Your task to perform on an android device: change the clock display to digital Image 0: 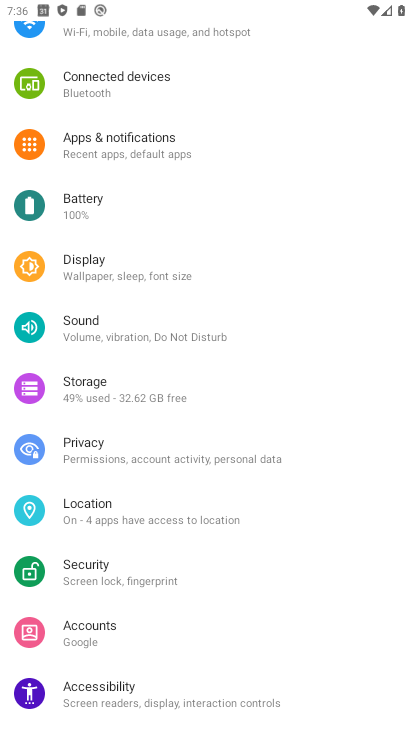
Step 0: press home button
Your task to perform on an android device: change the clock display to digital Image 1: 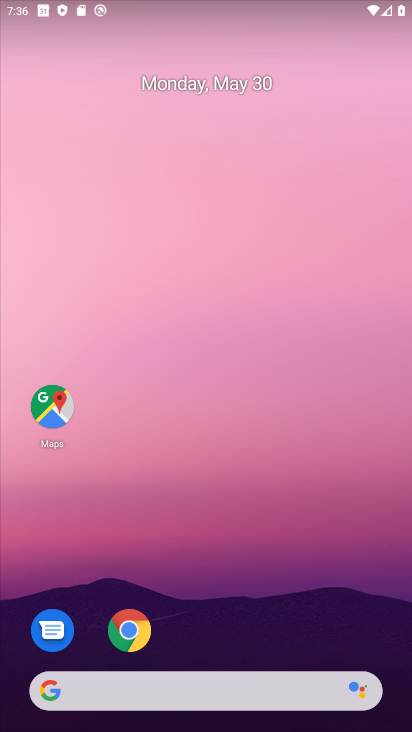
Step 1: drag from (224, 687) to (361, 227)
Your task to perform on an android device: change the clock display to digital Image 2: 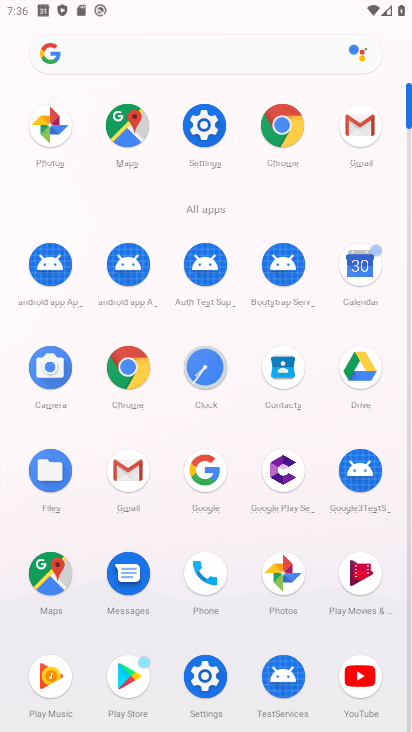
Step 2: click (200, 374)
Your task to perform on an android device: change the clock display to digital Image 3: 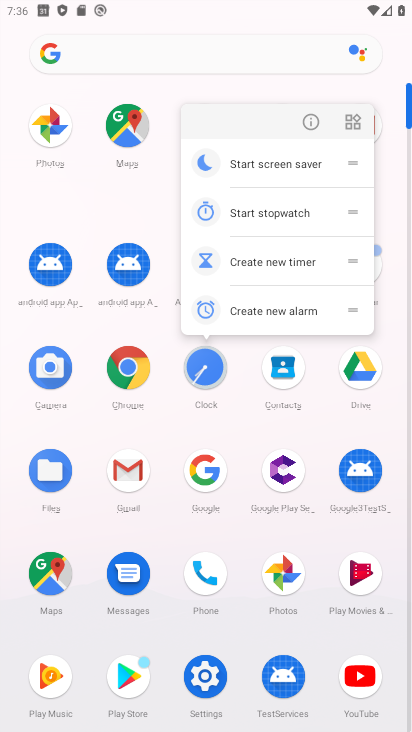
Step 3: click (207, 367)
Your task to perform on an android device: change the clock display to digital Image 4: 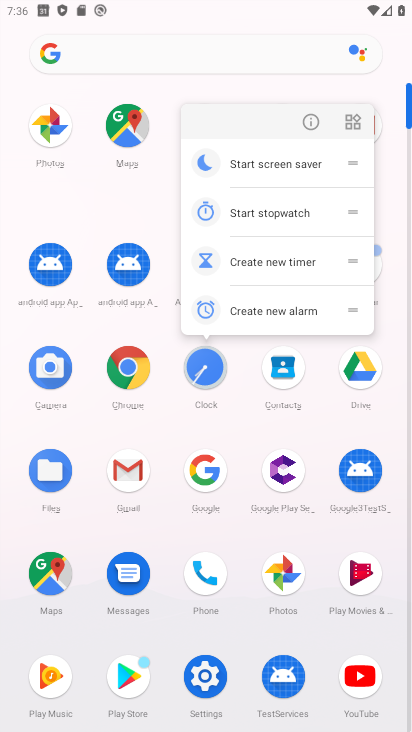
Step 4: click (206, 374)
Your task to perform on an android device: change the clock display to digital Image 5: 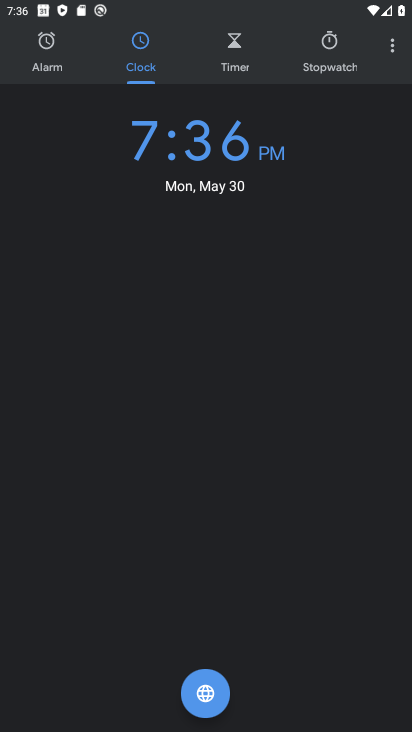
Step 5: click (393, 47)
Your task to perform on an android device: change the clock display to digital Image 6: 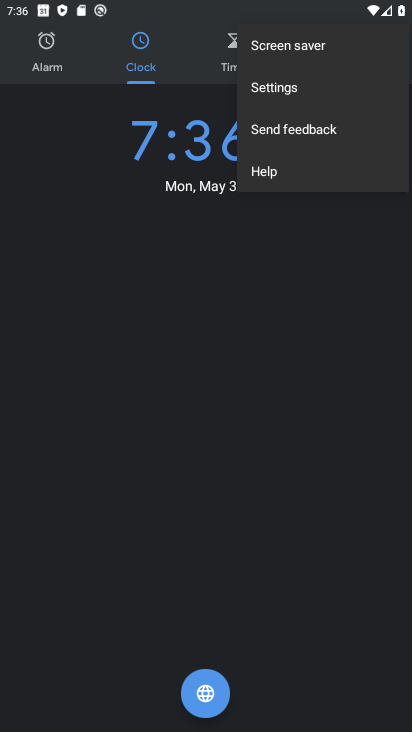
Step 6: click (304, 91)
Your task to perform on an android device: change the clock display to digital Image 7: 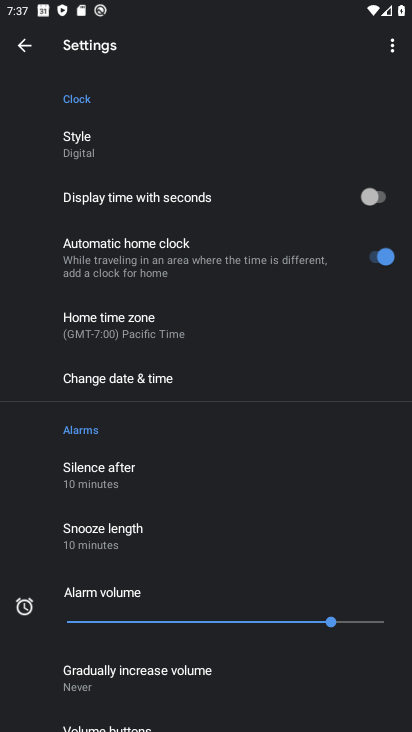
Step 7: task complete